Your task to perform on an android device: turn on bluetooth scan Image 0: 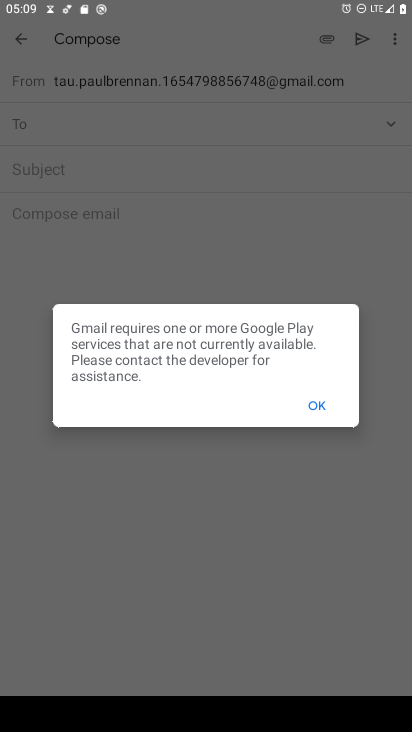
Step 0: press home button
Your task to perform on an android device: turn on bluetooth scan Image 1: 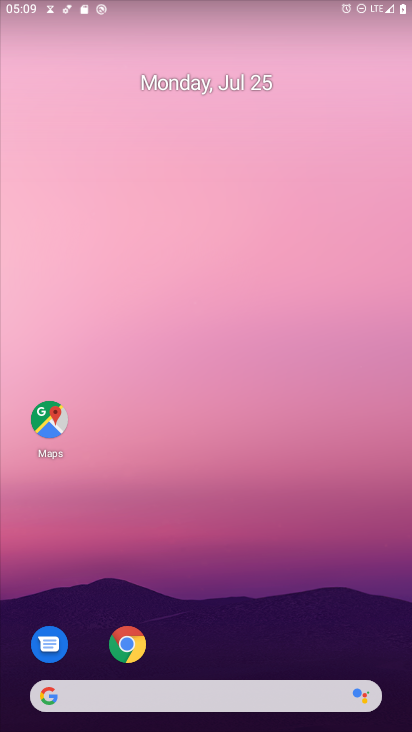
Step 1: drag from (296, 404) to (307, 16)
Your task to perform on an android device: turn on bluetooth scan Image 2: 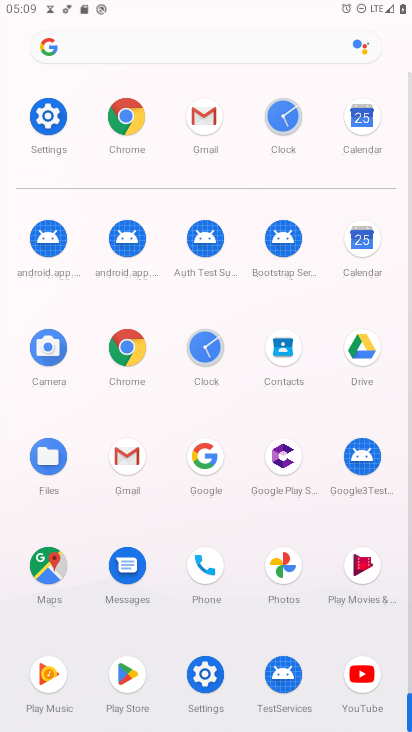
Step 2: click (48, 120)
Your task to perform on an android device: turn on bluetooth scan Image 3: 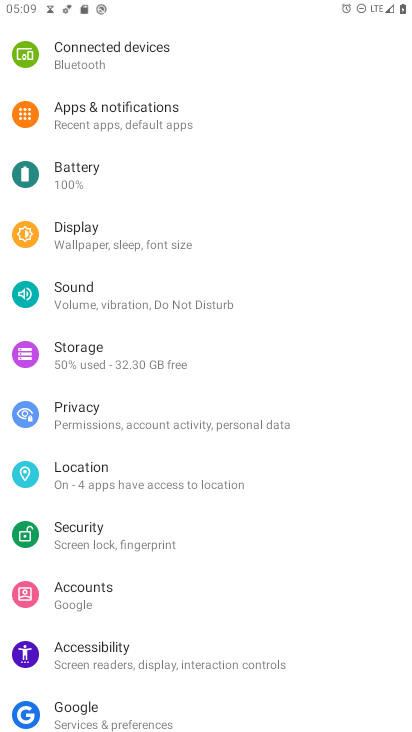
Step 3: click (81, 466)
Your task to perform on an android device: turn on bluetooth scan Image 4: 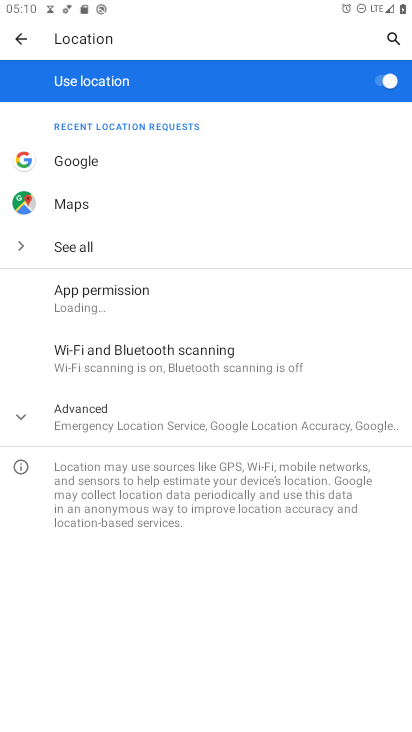
Step 4: click (314, 364)
Your task to perform on an android device: turn on bluetooth scan Image 5: 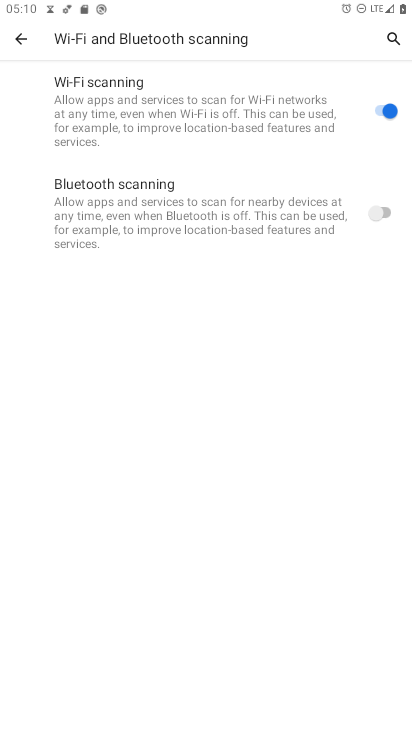
Step 5: click (385, 206)
Your task to perform on an android device: turn on bluetooth scan Image 6: 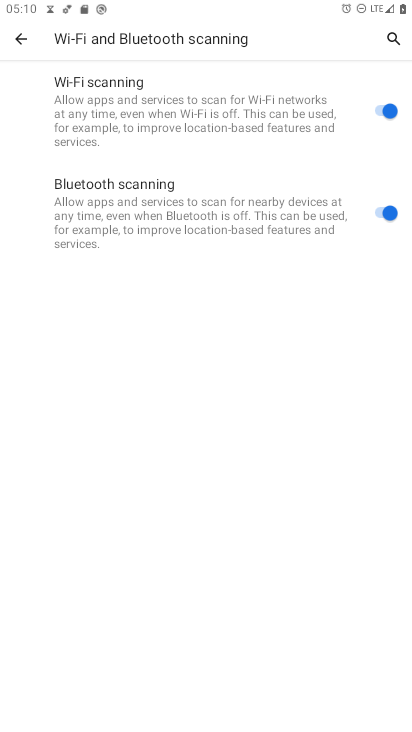
Step 6: task complete